Your task to perform on an android device: Clear all items from cart on costco.com. Add razer huntsman to the cart on costco.com, then select checkout. Image 0: 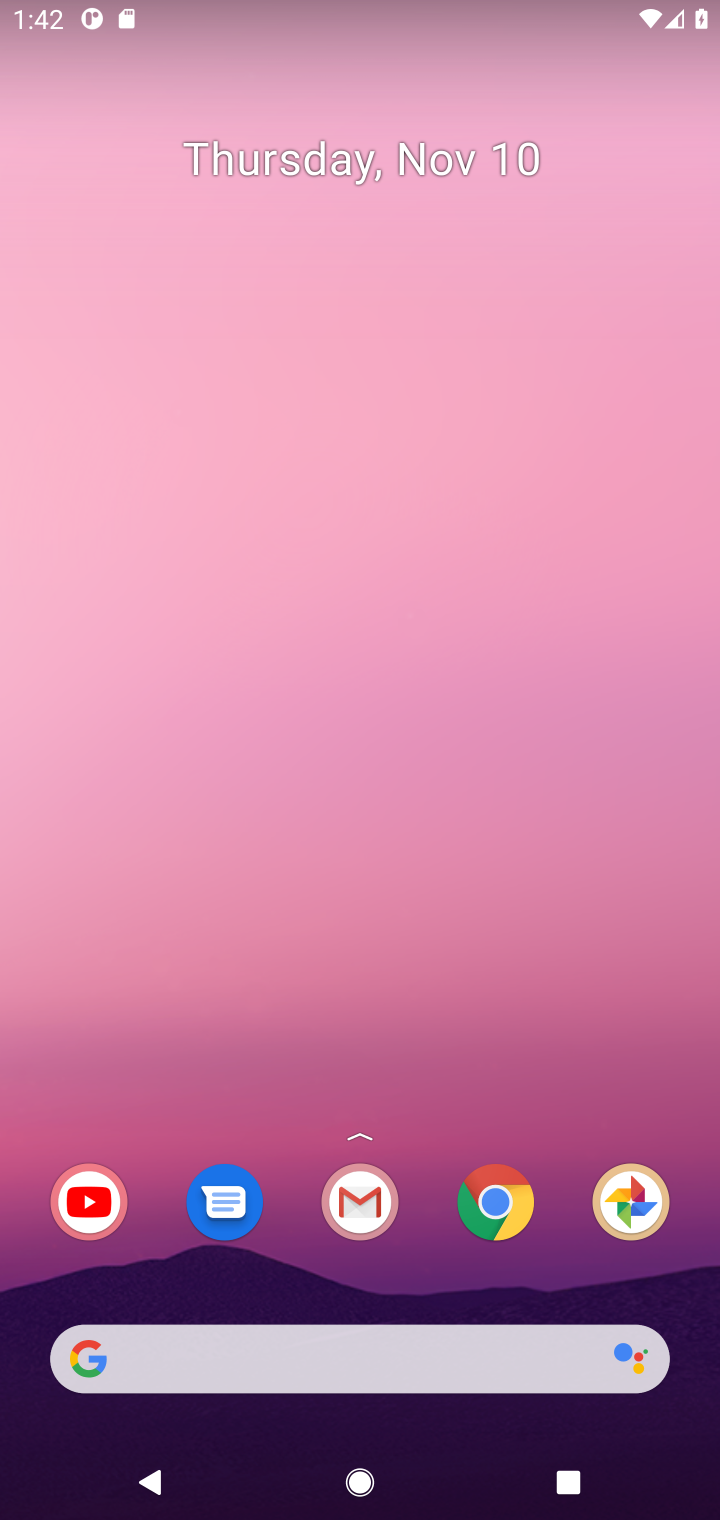
Step 0: click (507, 1211)
Your task to perform on an android device: Clear all items from cart on costco.com. Add razer huntsman to the cart on costco.com, then select checkout. Image 1: 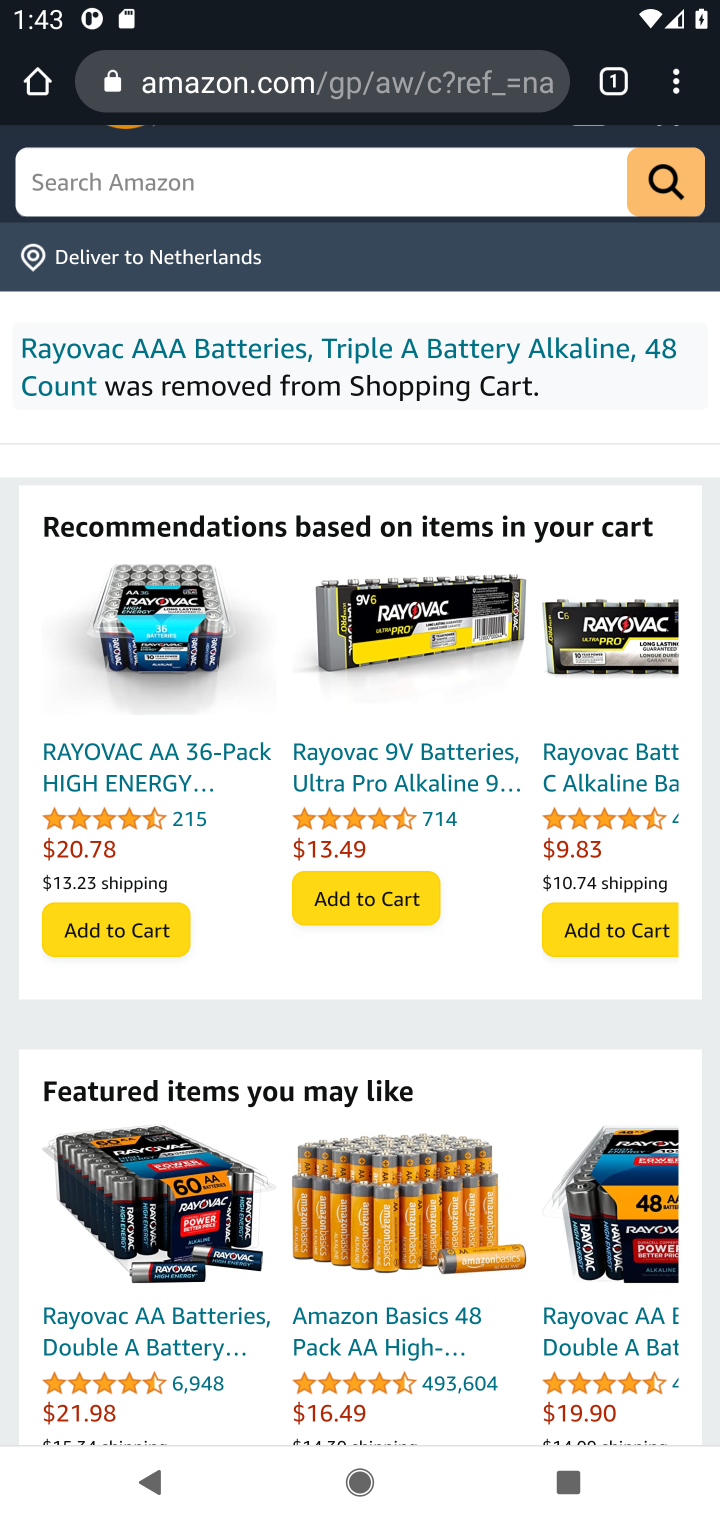
Step 1: click (398, 67)
Your task to perform on an android device: Clear all items from cart on costco.com. Add razer huntsman to the cart on costco.com, then select checkout. Image 2: 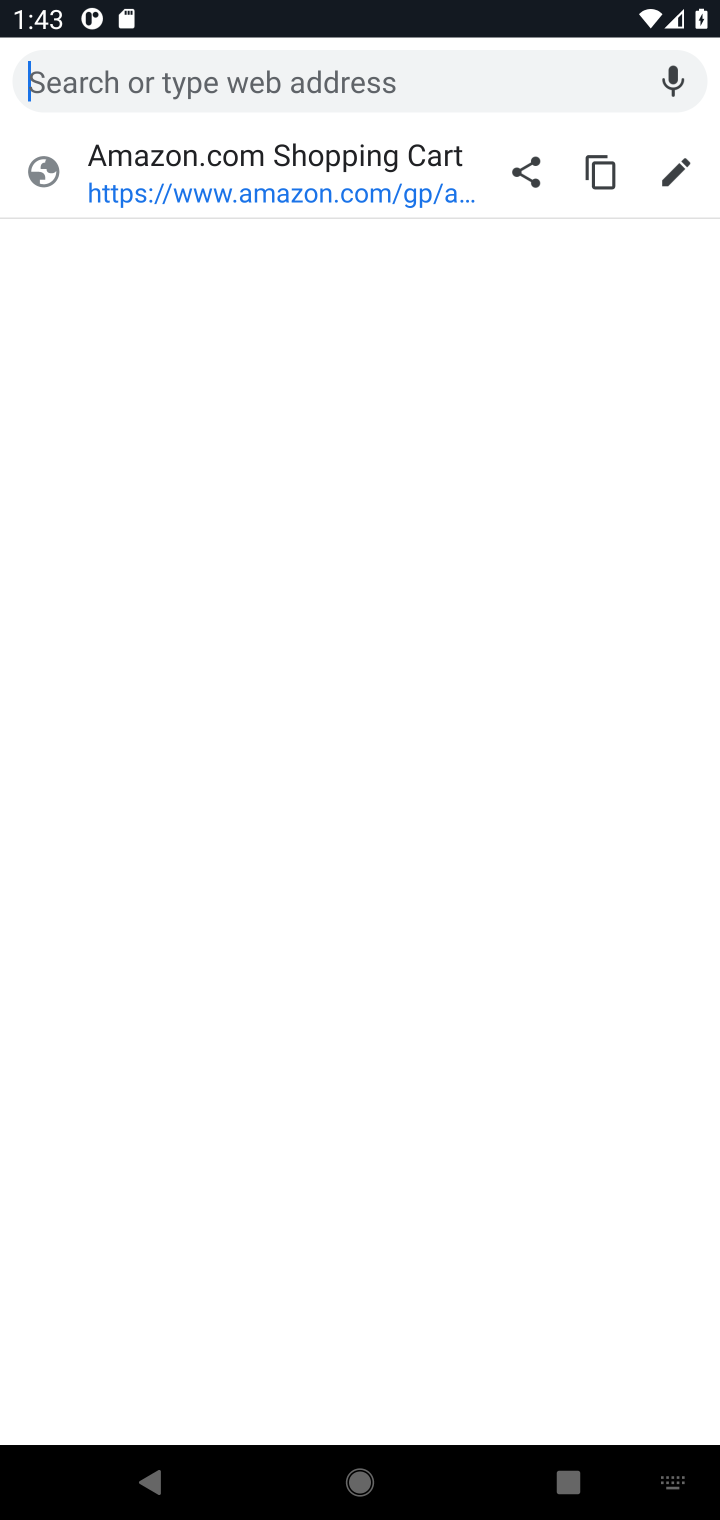
Step 2: type "costco.com"
Your task to perform on an android device: Clear all items from cart on costco.com. Add razer huntsman to the cart on costco.com, then select checkout. Image 3: 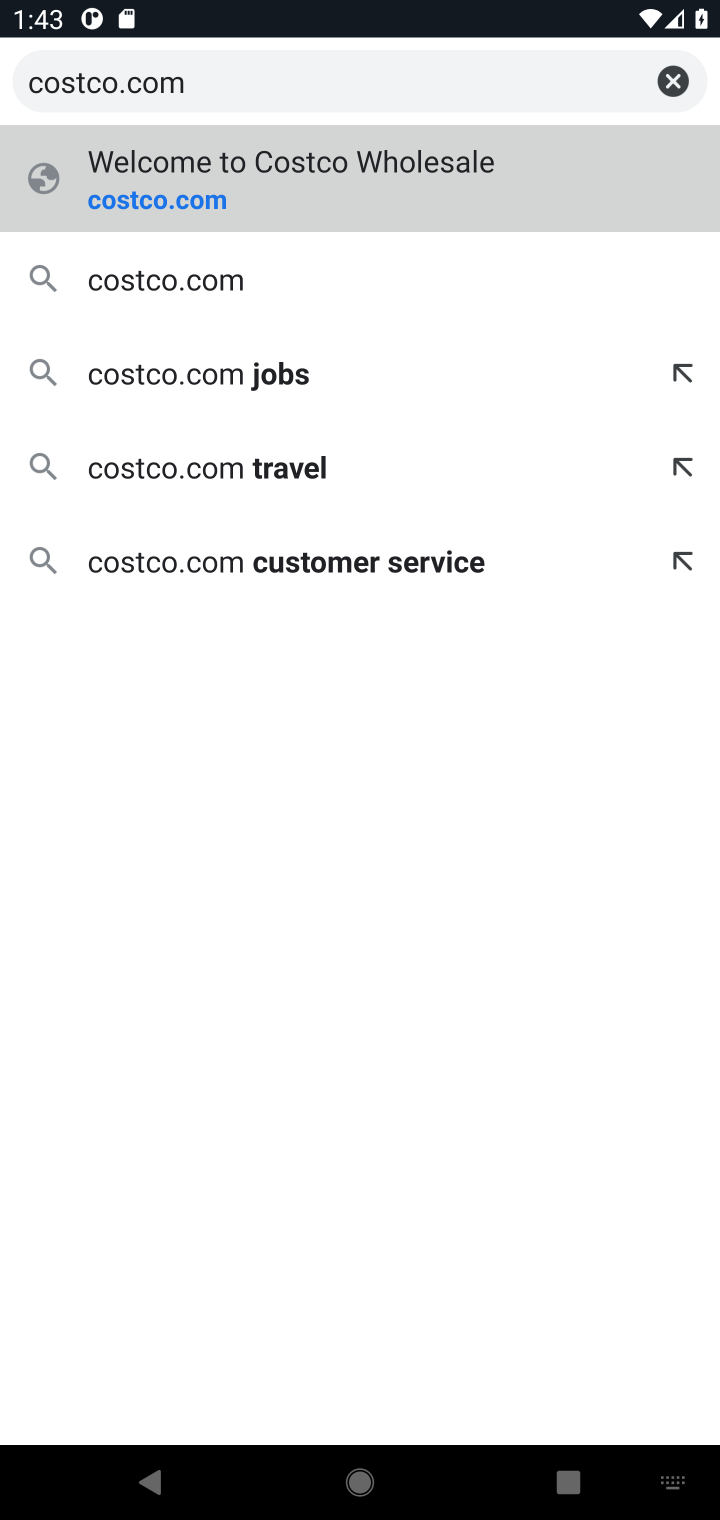
Step 3: press enter
Your task to perform on an android device: Clear all items from cart on costco.com. Add razer huntsman to the cart on costco.com, then select checkout. Image 4: 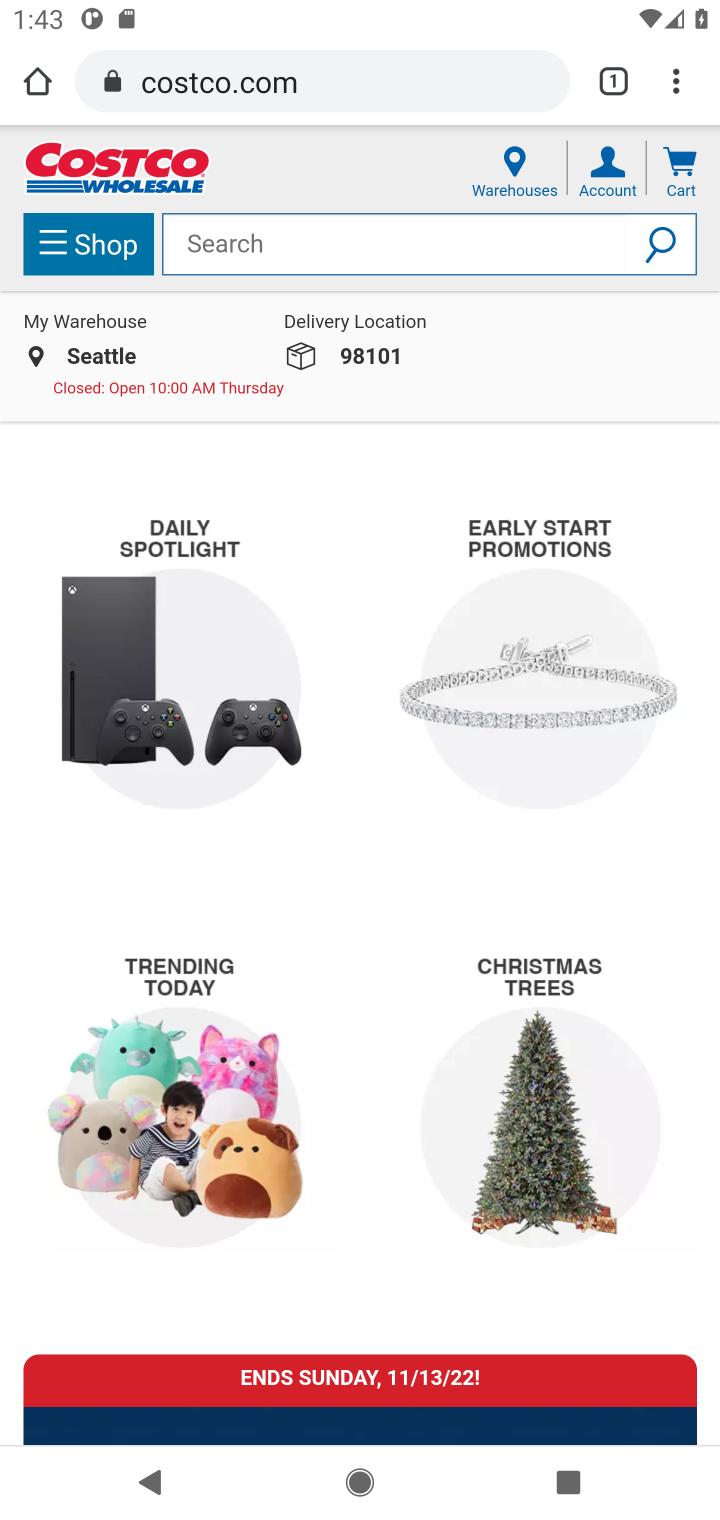
Step 4: click (460, 228)
Your task to perform on an android device: Clear all items from cart on costco.com. Add razer huntsman to the cart on costco.com, then select checkout. Image 5: 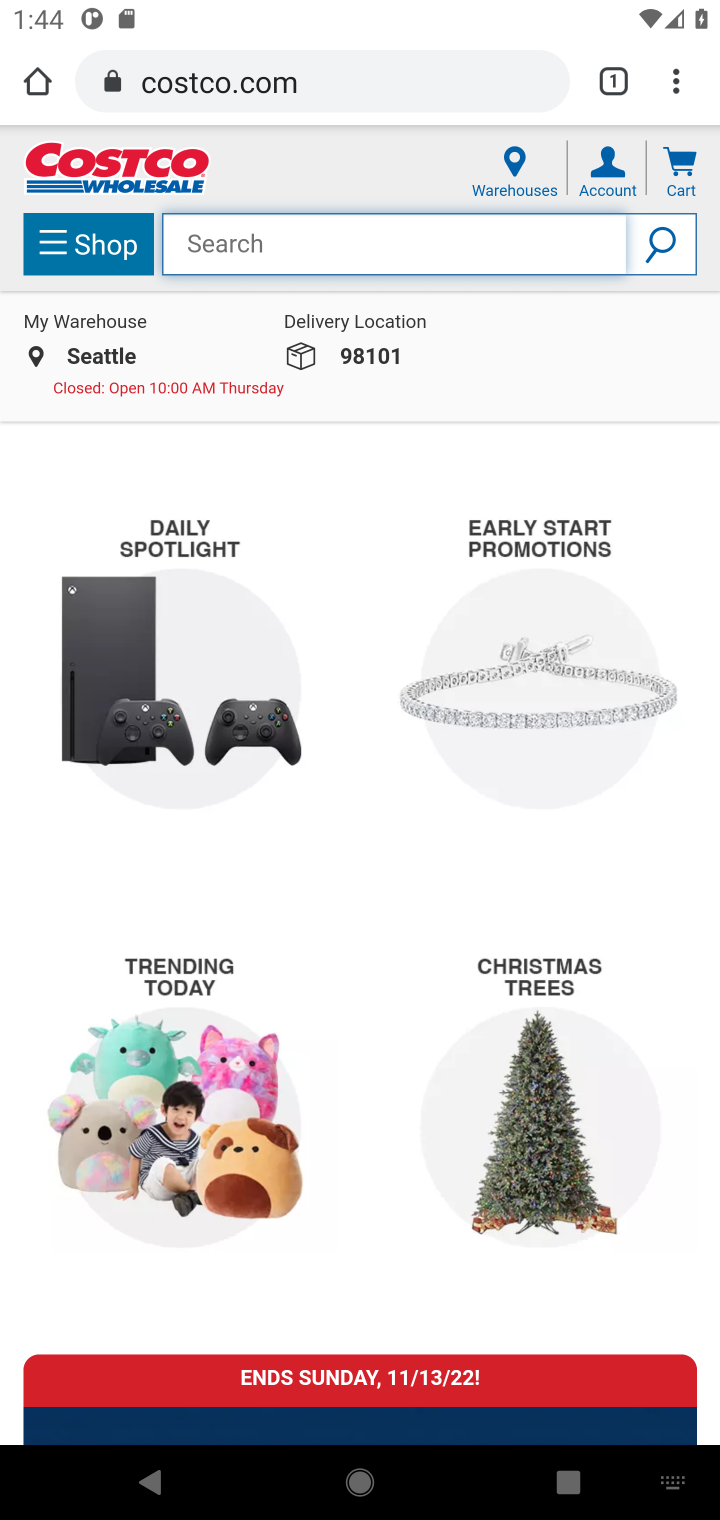
Step 5: type " razer huntsman "
Your task to perform on an android device: Clear all items from cart on costco.com. Add razer huntsman to the cart on costco.com, then select checkout. Image 6: 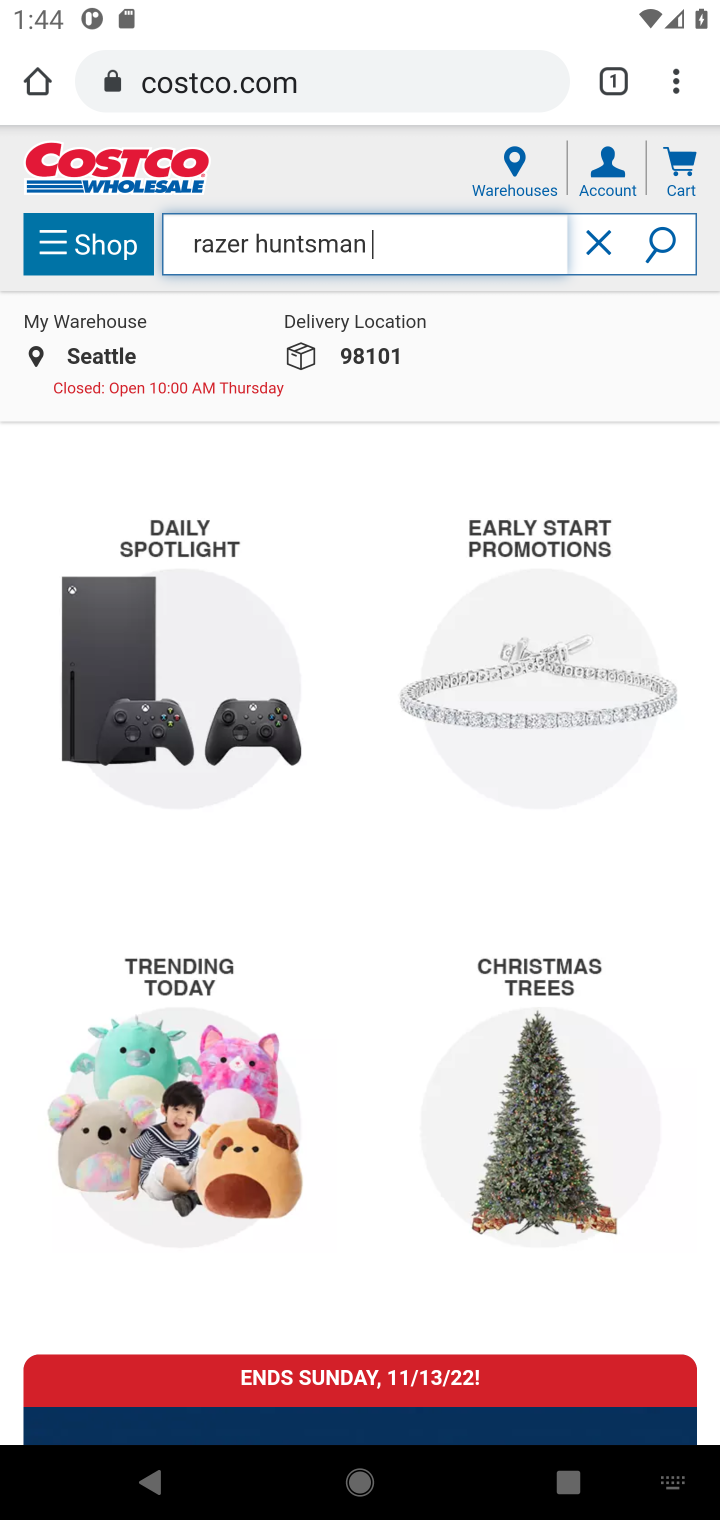
Step 6: press enter
Your task to perform on an android device: Clear all items from cart on costco.com. Add razer huntsman to the cart on costco.com, then select checkout. Image 7: 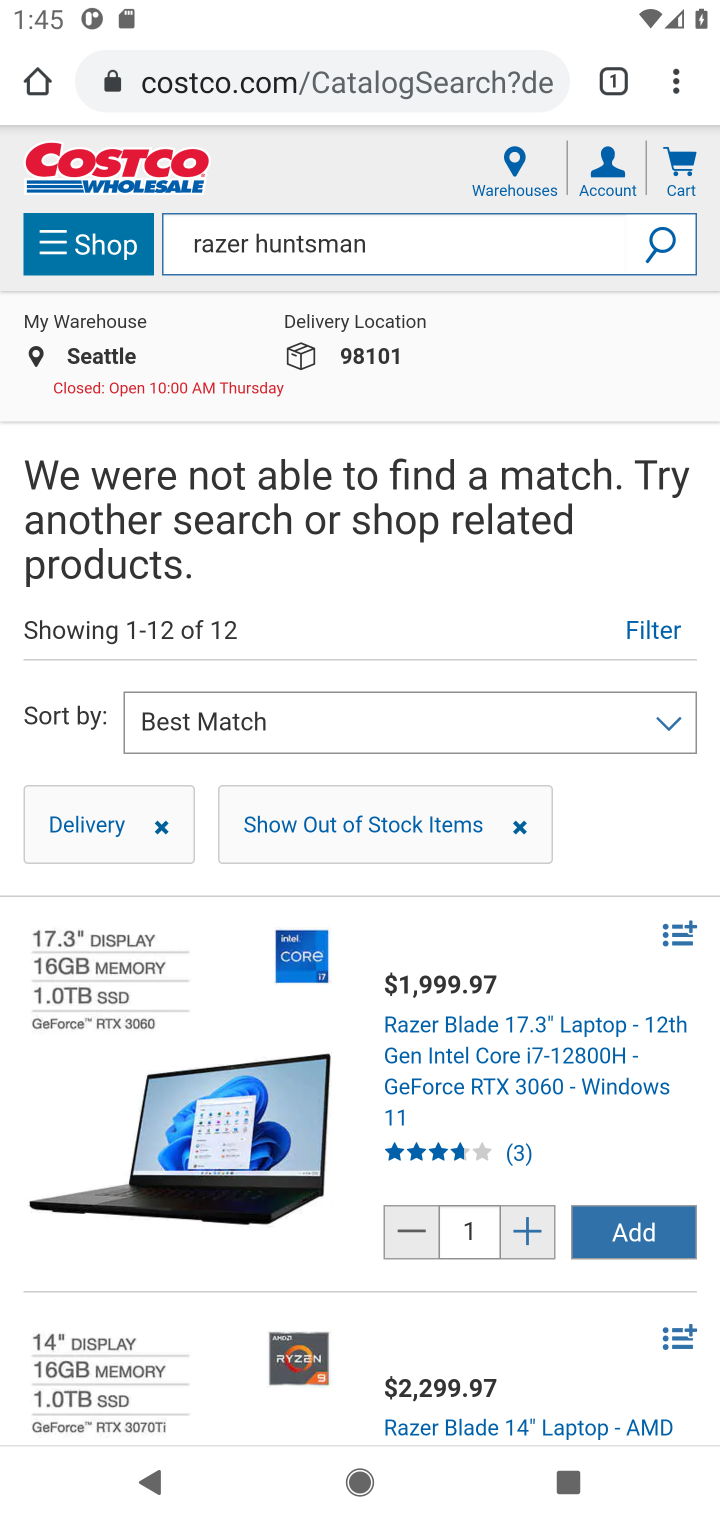
Step 7: task complete